Your task to perform on an android device: open chrome privacy settings Image 0: 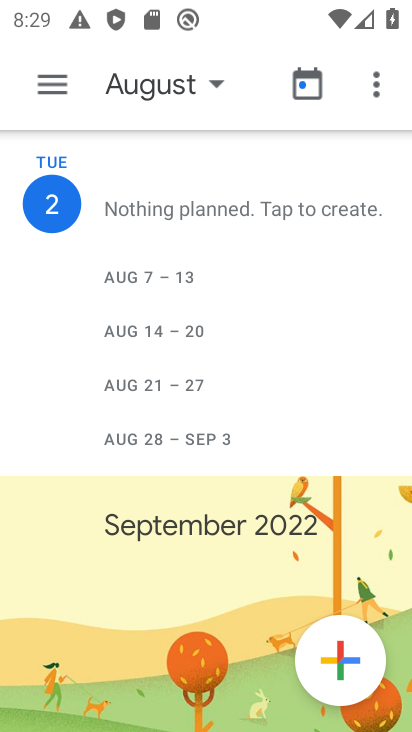
Step 0: press home button
Your task to perform on an android device: open chrome privacy settings Image 1: 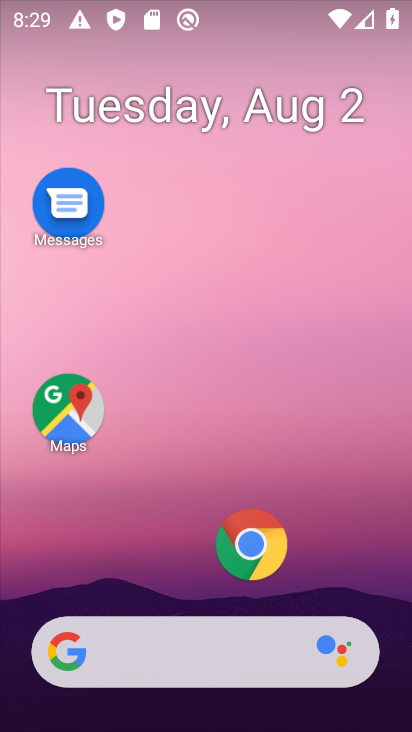
Step 1: click (258, 542)
Your task to perform on an android device: open chrome privacy settings Image 2: 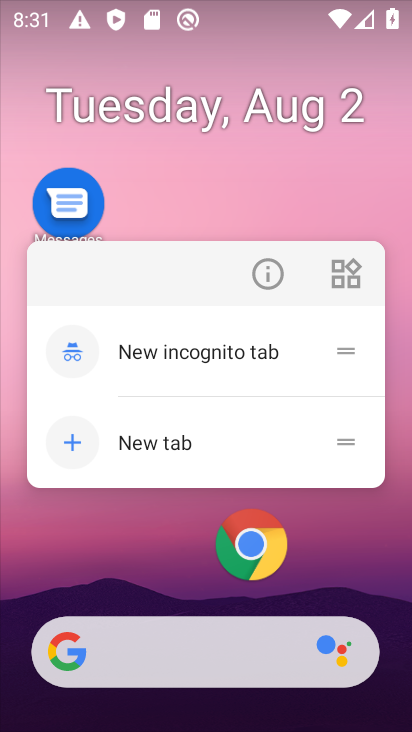
Step 2: click (249, 553)
Your task to perform on an android device: open chrome privacy settings Image 3: 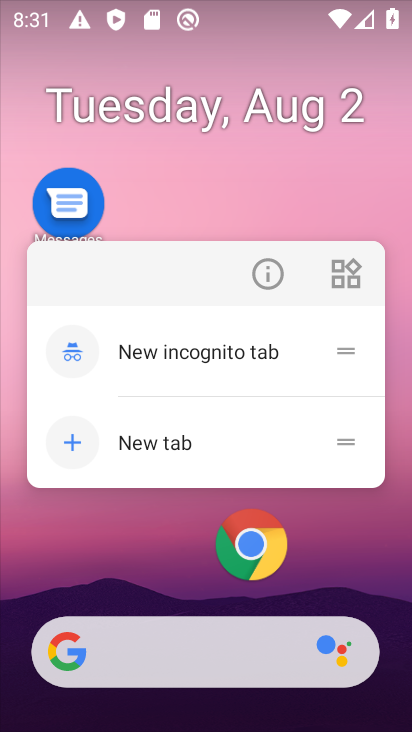
Step 3: click (243, 552)
Your task to perform on an android device: open chrome privacy settings Image 4: 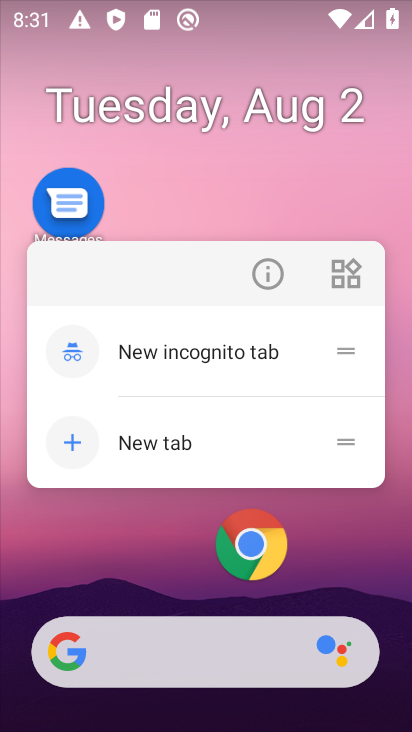
Step 4: click (253, 534)
Your task to perform on an android device: open chrome privacy settings Image 5: 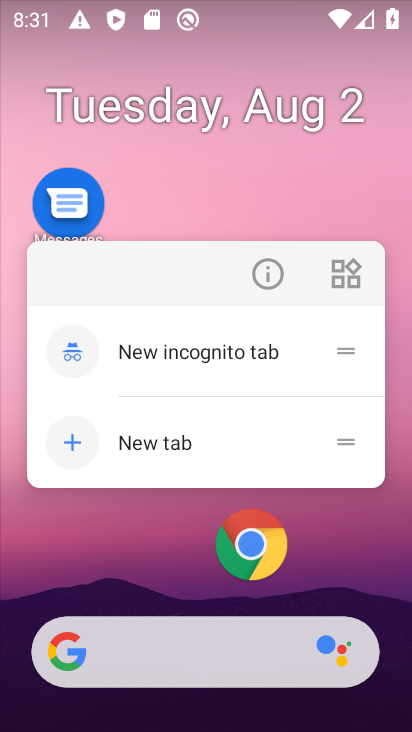
Step 5: click (260, 543)
Your task to perform on an android device: open chrome privacy settings Image 6: 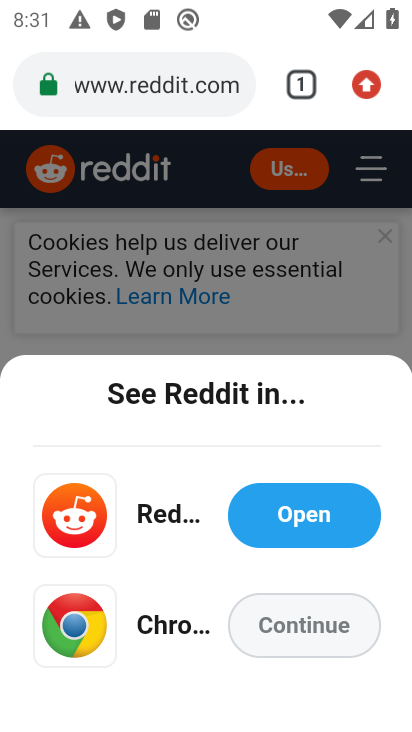
Step 6: click (367, 90)
Your task to perform on an android device: open chrome privacy settings Image 7: 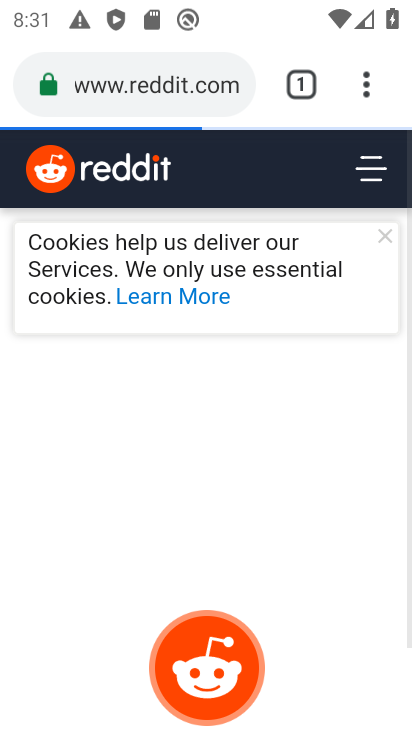
Step 7: click (367, 90)
Your task to perform on an android device: open chrome privacy settings Image 8: 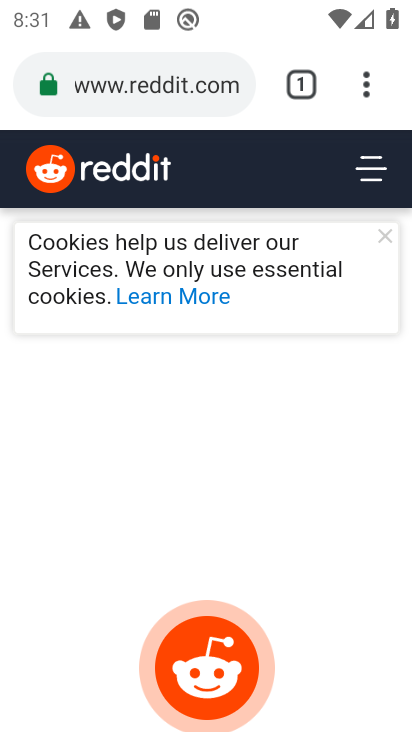
Step 8: click (365, 78)
Your task to perform on an android device: open chrome privacy settings Image 9: 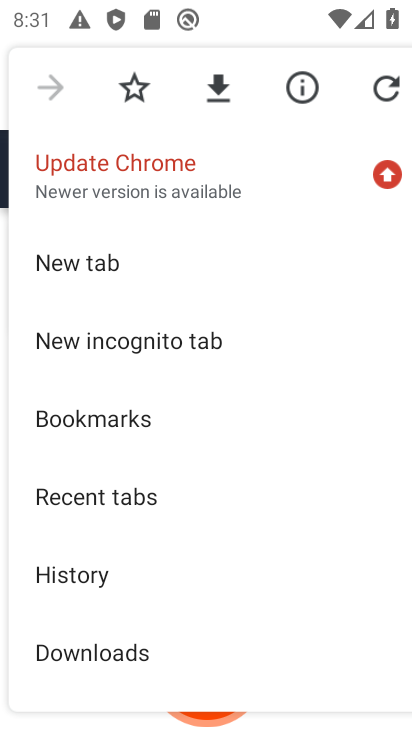
Step 9: drag from (63, 658) to (64, 242)
Your task to perform on an android device: open chrome privacy settings Image 10: 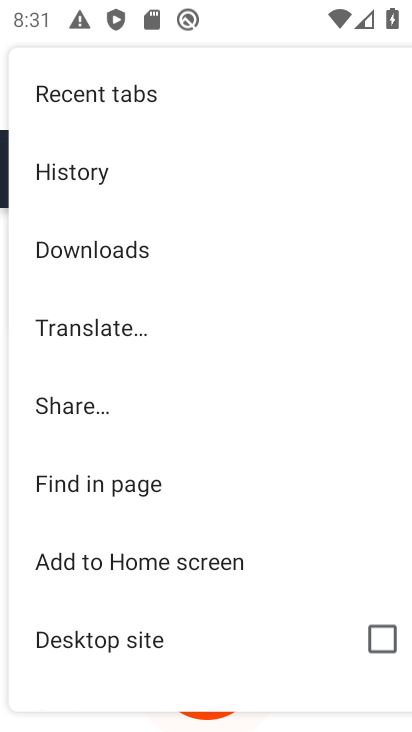
Step 10: drag from (86, 576) to (86, 225)
Your task to perform on an android device: open chrome privacy settings Image 11: 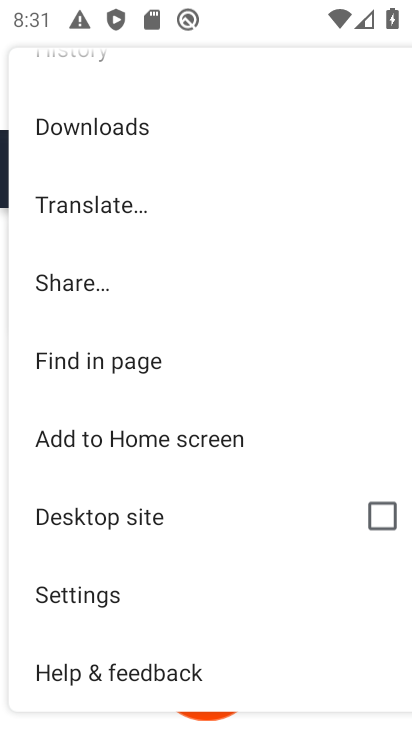
Step 11: click (93, 597)
Your task to perform on an android device: open chrome privacy settings Image 12: 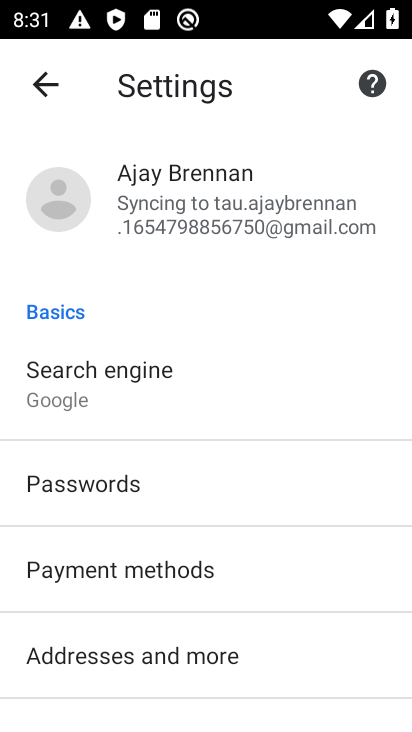
Step 12: drag from (105, 686) to (70, 337)
Your task to perform on an android device: open chrome privacy settings Image 13: 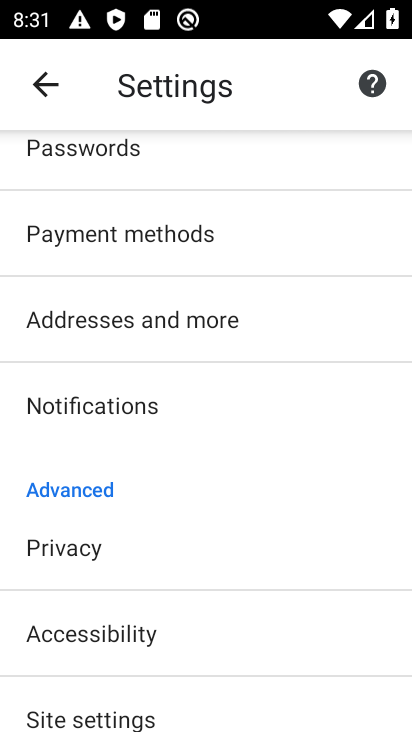
Step 13: click (55, 549)
Your task to perform on an android device: open chrome privacy settings Image 14: 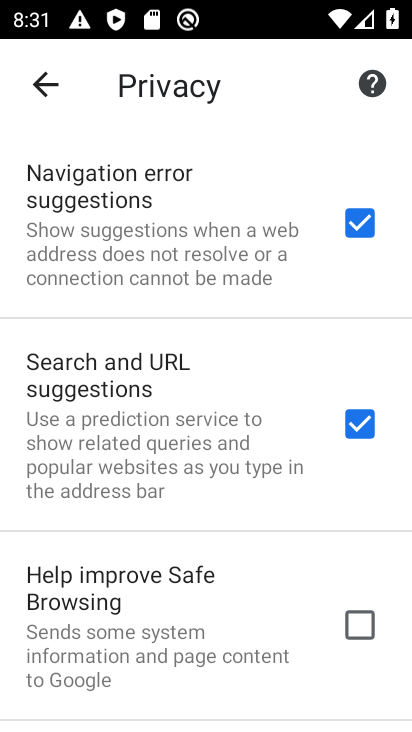
Step 14: task complete